Your task to perform on an android device: open app "Etsy: Buy & Sell Unique Items" (install if not already installed) and go to login screen Image 0: 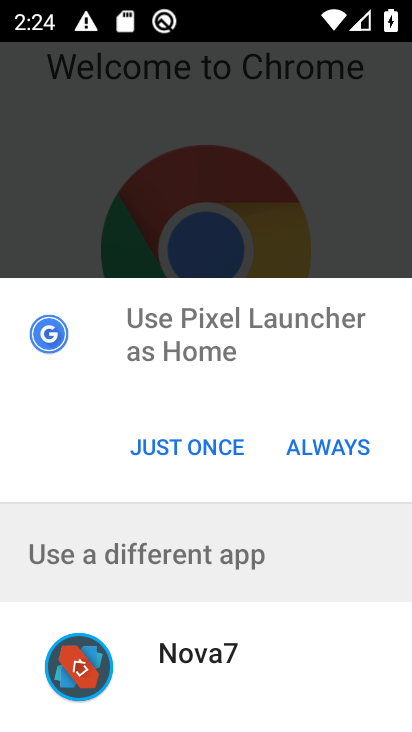
Step 0: click (143, 436)
Your task to perform on an android device: open app "Etsy: Buy & Sell Unique Items" (install if not already installed) and go to login screen Image 1: 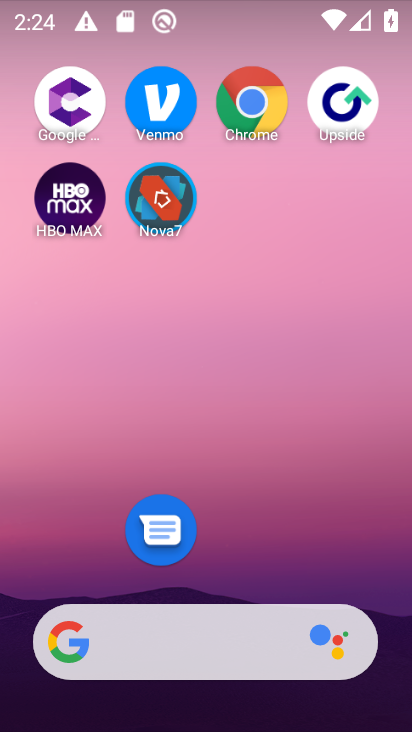
Step 1: drag from (287, 508) to (305, 33)
Your task to perform on an android device: open app "Etsy: Buy & Sell Unique Items" (install if not already installed) and go to login screen Image 2: 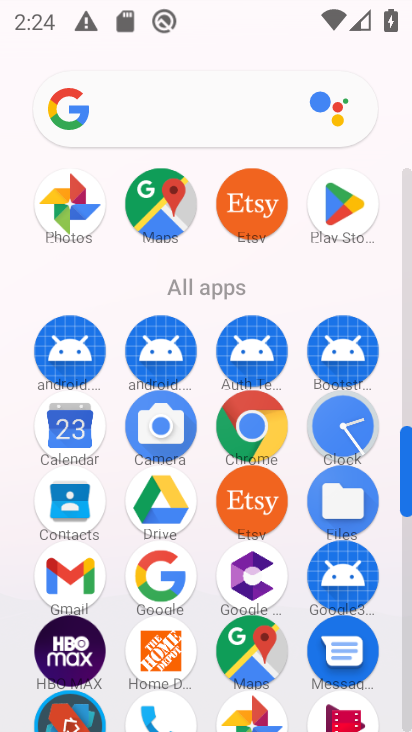
Step 2: click (354, 209)
Your task to perform on an android device: open app "Etsy: Buy & Sell Unique Items" (install if not already installed) and go to login screen Image 3: 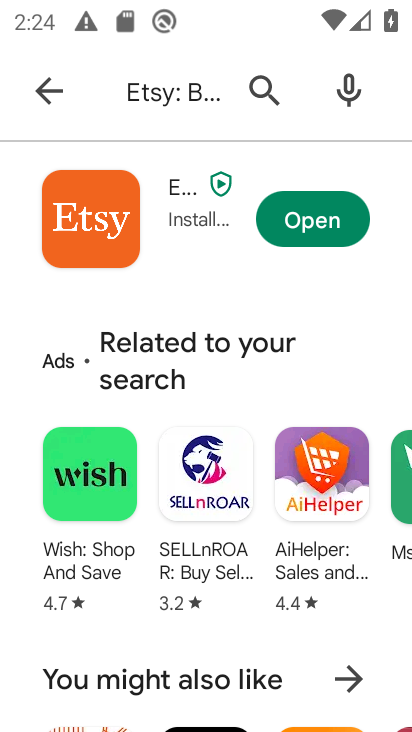
Step 3: press back button
Your task to perform on an android device: open app "Etsy: Buy & Sell Unique Items" (install if not already installed) and go to login screen Image 4: 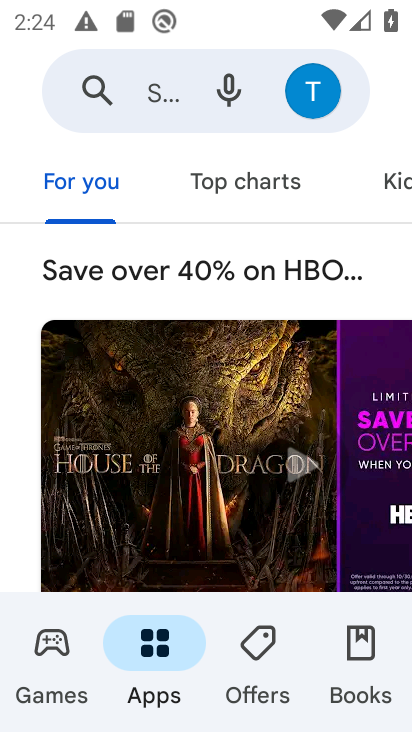
Step 4: click (112, 102)
Your task to perform on an android device: open app "Etsy: Buy & Sell Unique Items" (install if not already installed) and go to login screen Image 5: 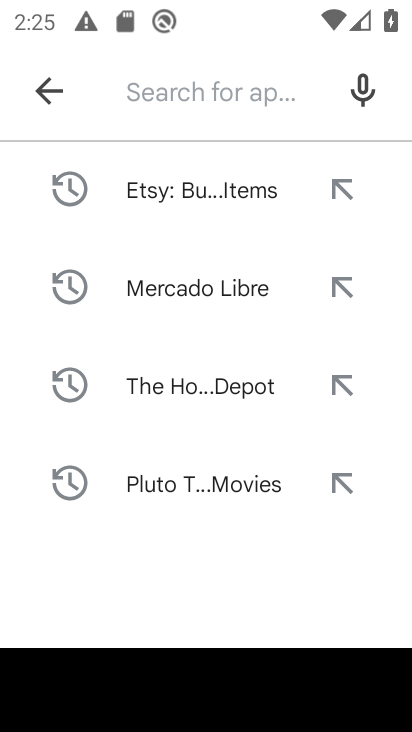
Step 5: type "Etsy: Buy & Sell Unique Items"
Your task to perform on an android device: open app "Etsy: Buy & Sell Unique Items" (install if not already installed) and go to login screen Image 6: 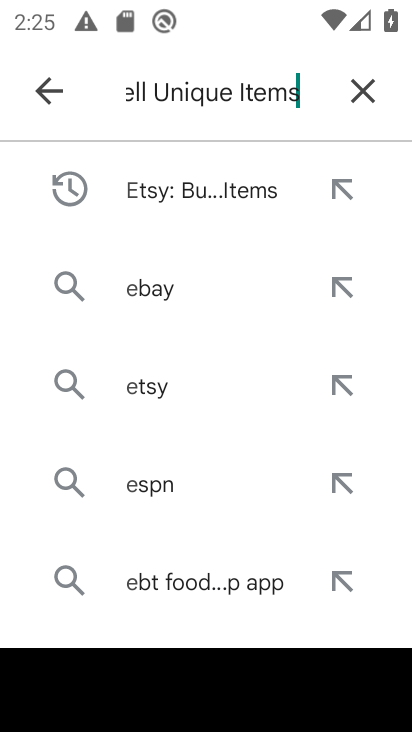
Step 6: press enter
Your task to perform on an android device: open app "Etsy: Buy & Sell Unique Items" (install if not already installed) and go to login screen Image 7: 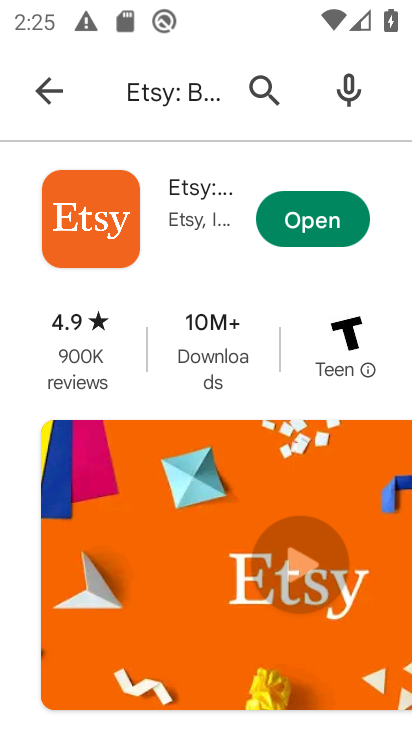
Step 7: click (293, 215)
Your task to perform on an android device: open app "Etsy: Buy & Sell Unique Items" (install if not already installed) and go to login screen Image 8: 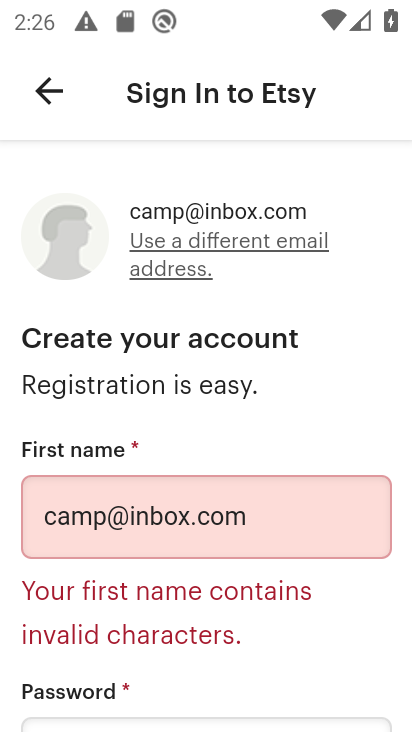
Step 8: task complete